Your task to perform on an android device: What's on my calendar today? Image 0: 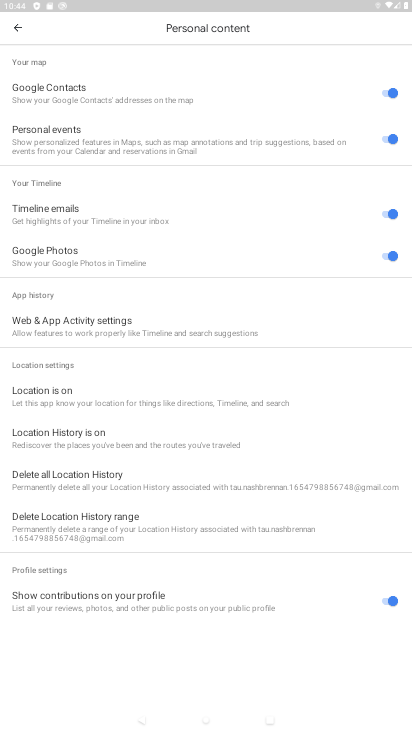
Step 0: press home button
Your task to perform on an android device: What's on my calendar today? Image 1: 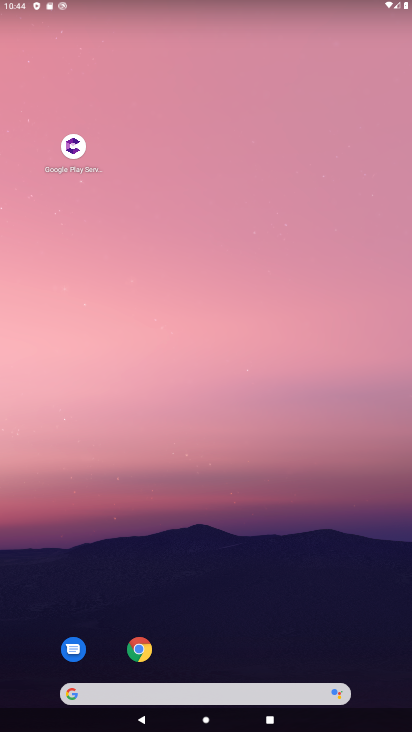
Step 1: press home button
Your task to perform on an android device: What's on my calendar today? Image 2: 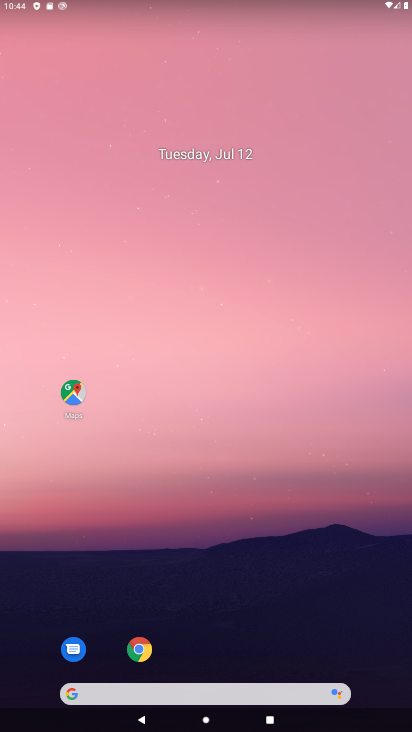
Step 2: drag from (243, 678) to (304, 385)
Your task to perform on an android device: What's on my calendar today? Image 3: 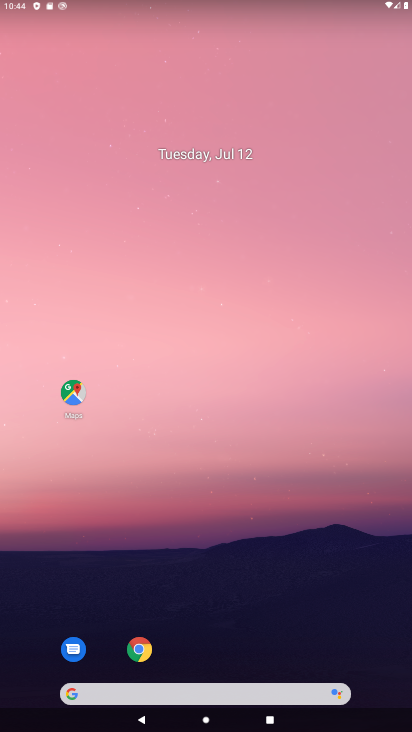
Step 3: drag from (264, 692) to (309, 1)
Your task to perform on an android device: What's on my calendar today? Image 4: 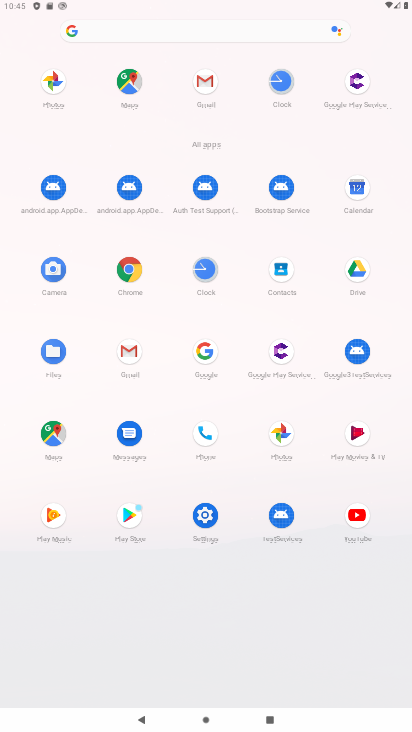
Step 4: click (343, 202)
Your task to perform on an android device: What's on my calendar today? Image 5: 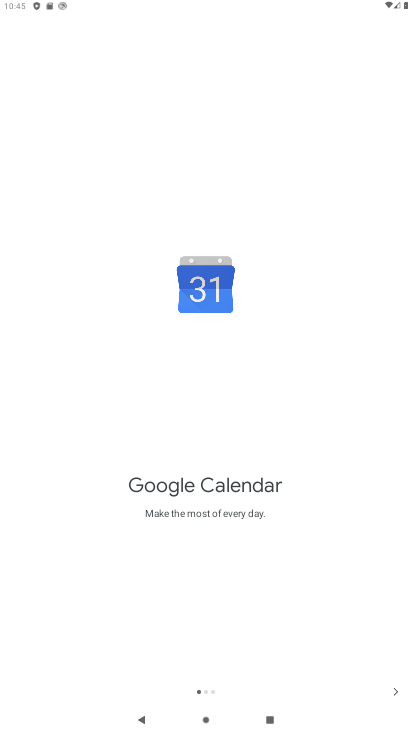
Step 5: click (394, 692)
Your task to perform on an android device: What's on my calendar today? Image 6: 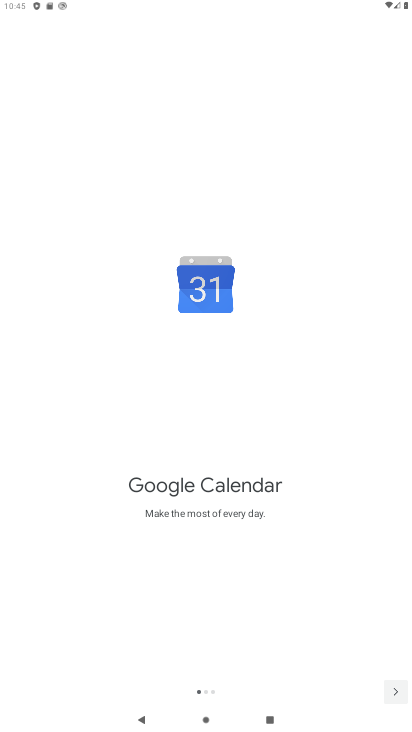
Step 6: click (394, 692)
Your task to perform on an android device: What's on my calendar today? Image 7: 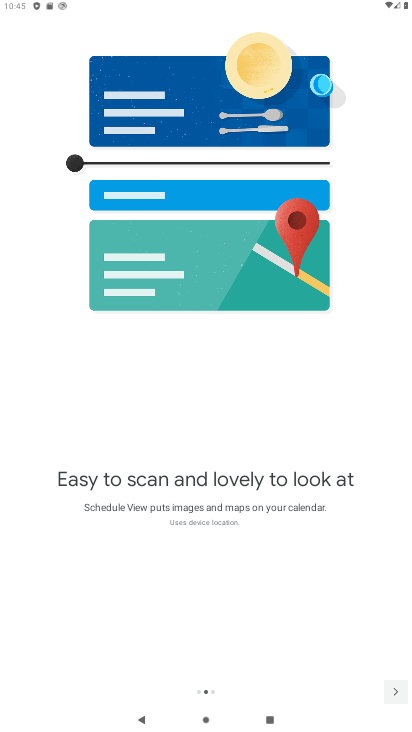
Step 7: click (394, 692)
Your task to perform on an android device: What's on my calendar today? Image 8: 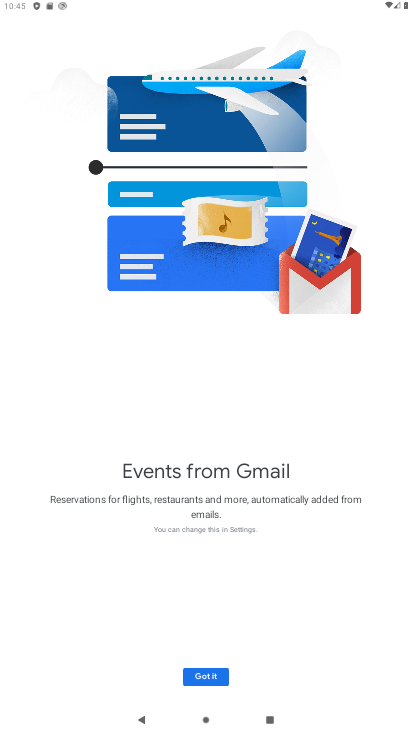
Step 8: click (394, 692)
Your task to perform on an android device: What's on my calendar today? Image 9: 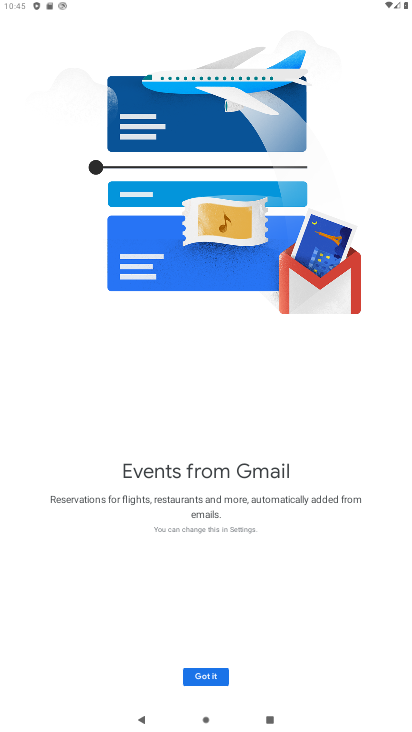
Step 9: click (204, 676)
Your task to perform on an android device: What's on my calendar today? Image 10: 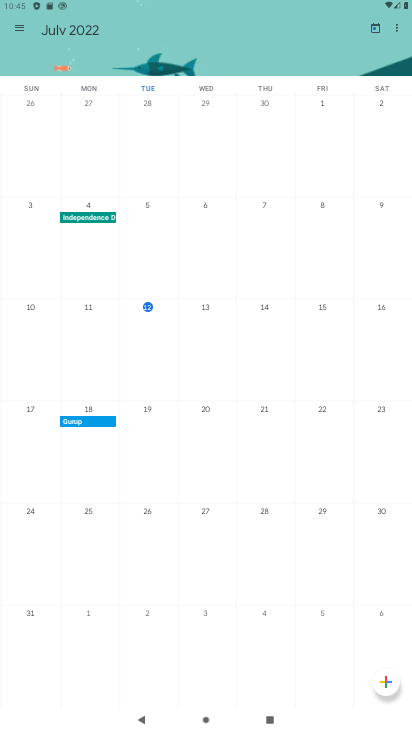
Step 10: click (146, 346)
Your task to perform on an android device: What's on my calendar today? Image 11: 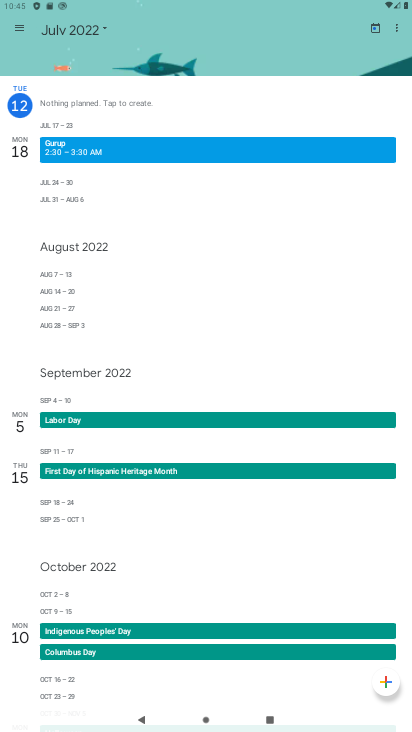
Step 11: task complete